Your task to perform on an android device: toggle data saver in the chrome app Image 0: 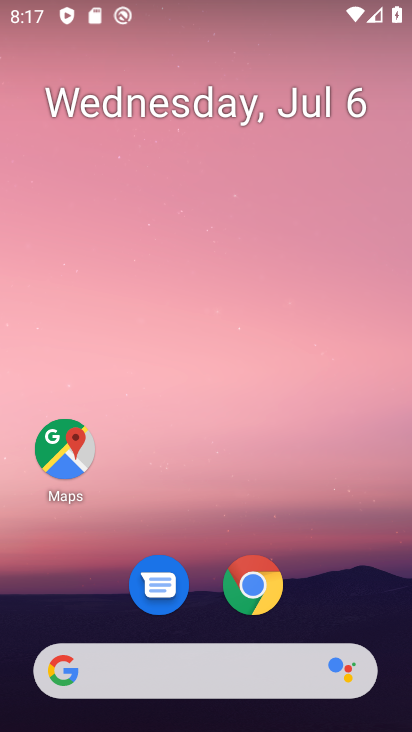
Step 0: click (257, 597)
Your task to perform on an android device: toggle data saver in the chrome app Image 1: 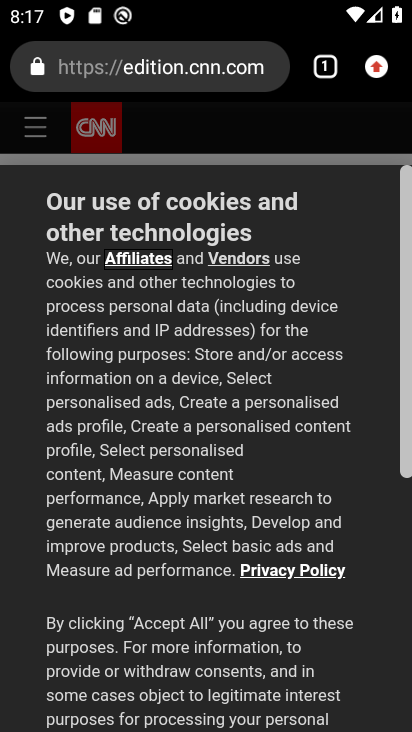
Step 1: click (379, 68)
Your task to perform on an android device: toggle data saver in the chrome app Image 2: 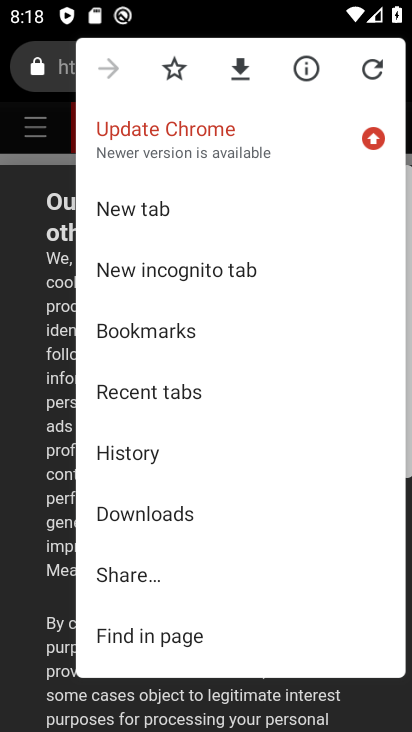
Step 2: drag from (196, 504) to (223, 186)
Your task to perform on an android device: toggle data saver in the chrome app Image 3: 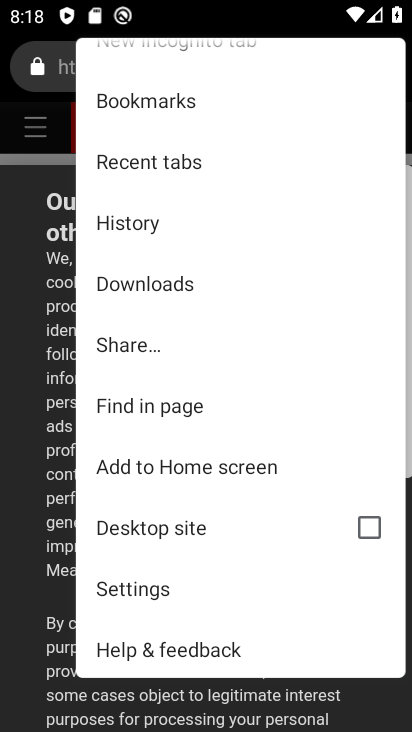
Step 3: click (159, 595)
Your task to perform on an android device: toggle data saver in the chrome app Image 4: 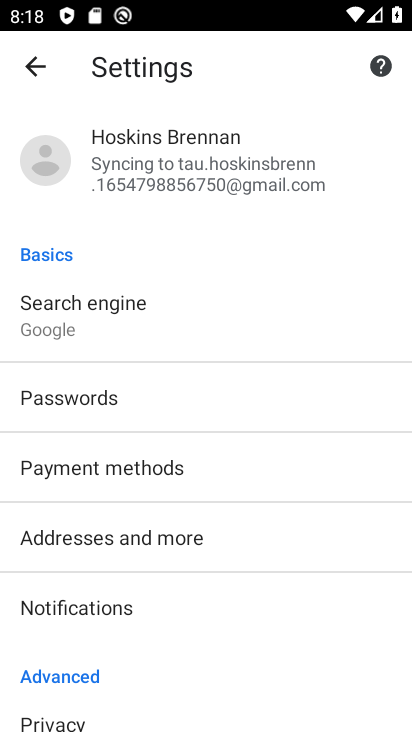
Step 4: drag from (172, 615) to (226, 175)
Your task to perform on an android device: toggle data saver in the chrome app Image 5: 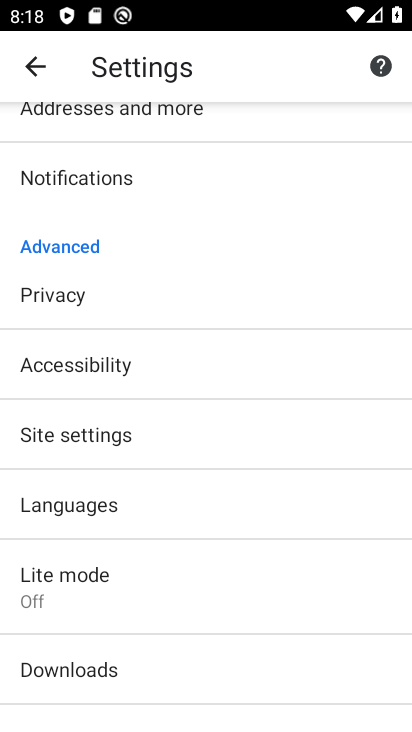
Step 5: click (106, 590)
Your task to perform on an android device: toggle data saver in the chrome app Image 6: 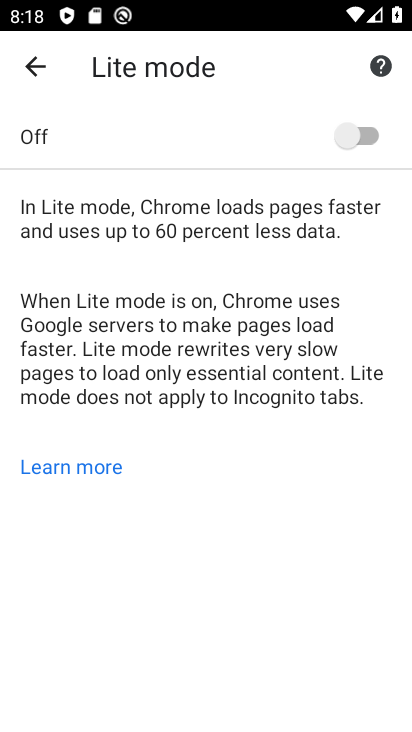
Step 6: click (359, 135)
Your task to perform on an android device: toggle data saver in the chrome app Image 7: 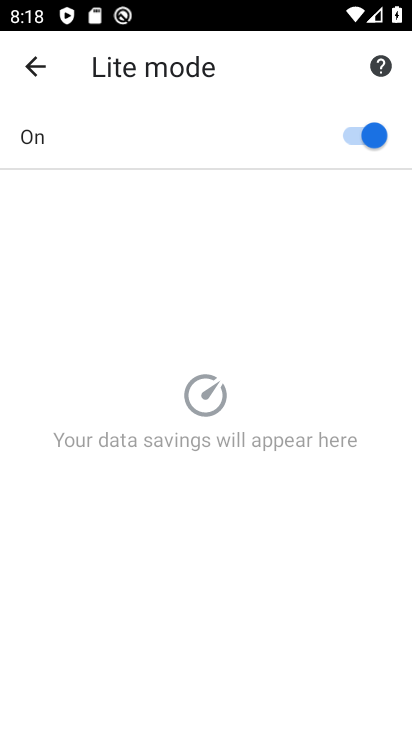
Step 7: task complete